Your task to perform on an android device: Open sound settings Image 0: 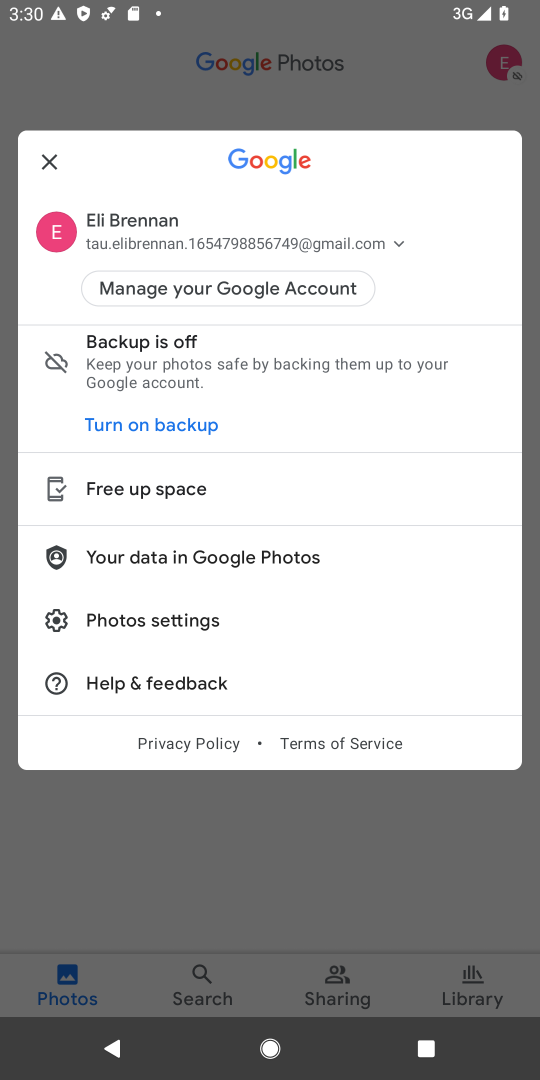
Step 0: press home button
Your task to perform on an android device: Open sound settings Image 1: 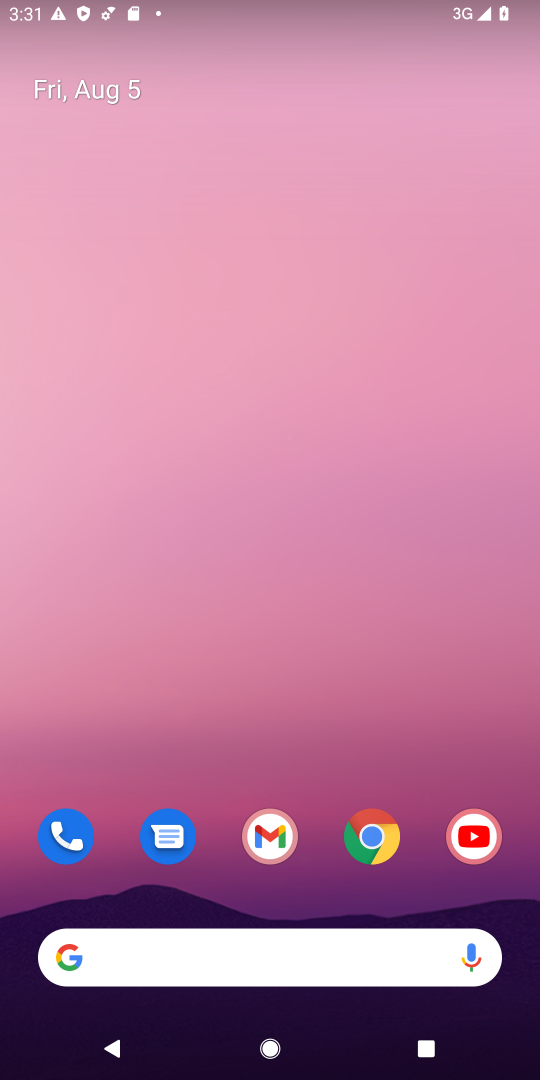
Step 1: drag from (351, 736) to (259, 109)
Your task to perform on an android device: Open sound settings Image 2: 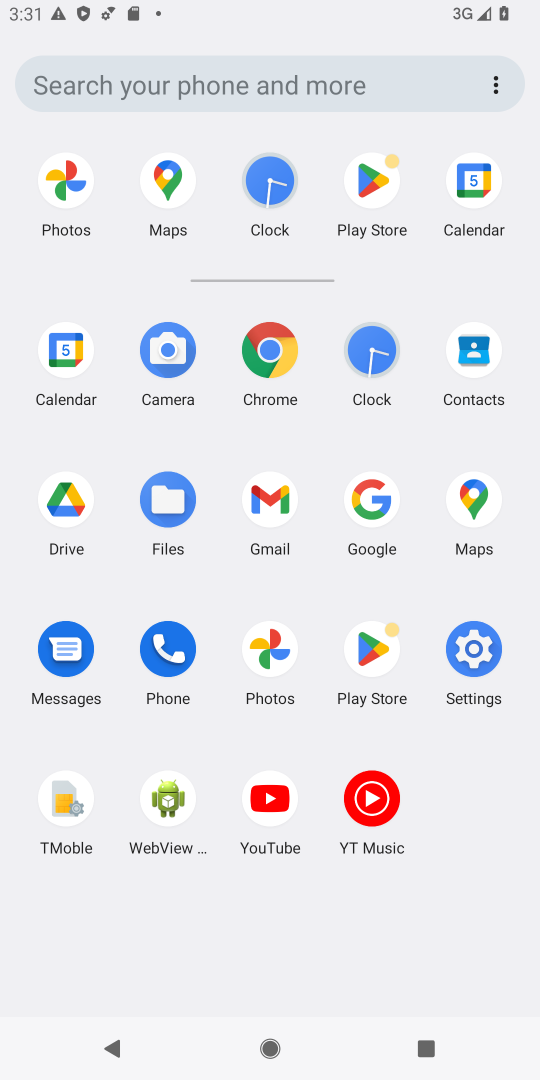
Step 2: click (480, 650)
Your task to perform on an android device: Open sound settings Image 3: 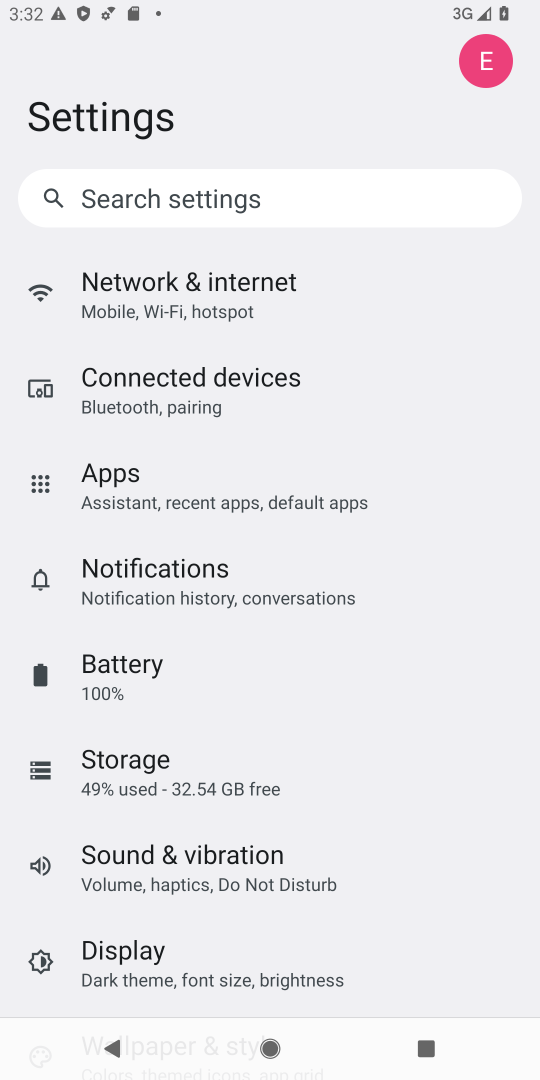
Step 3: drag from (213, 825) to (230, 274)
Your task to perform on an android device: Open sound settings Image 4: 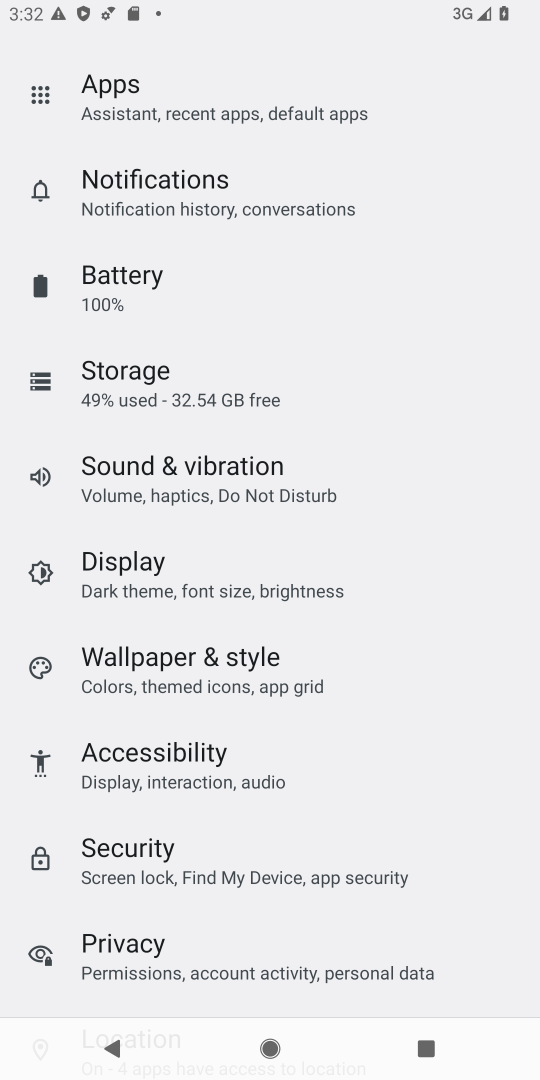
Step 4: click (131, 475)
Your task to perform on an android device: Open sound settings Image 5: 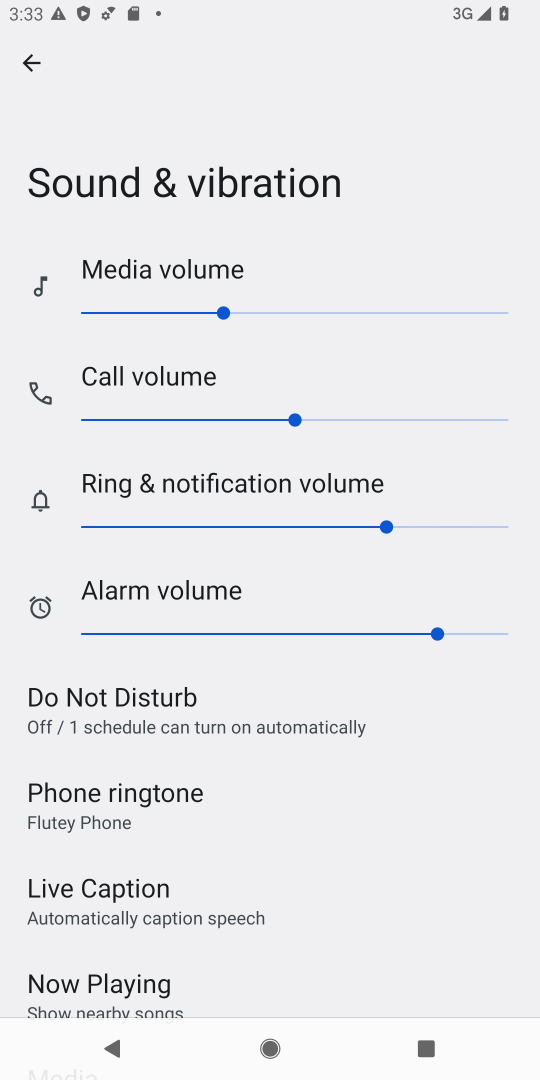
Step 5: task complete